Your task to perform on an android device: refresh tabs in the chrome app Image 0: 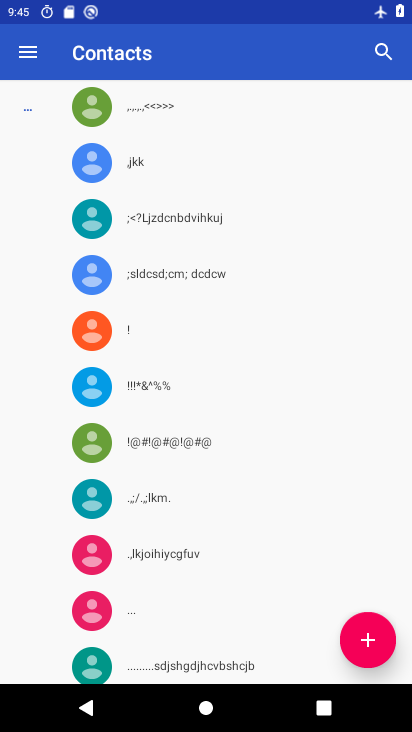
Step 0: press home button
Your task to perform on an android device: refresh tabs in the chrome app Image 1: 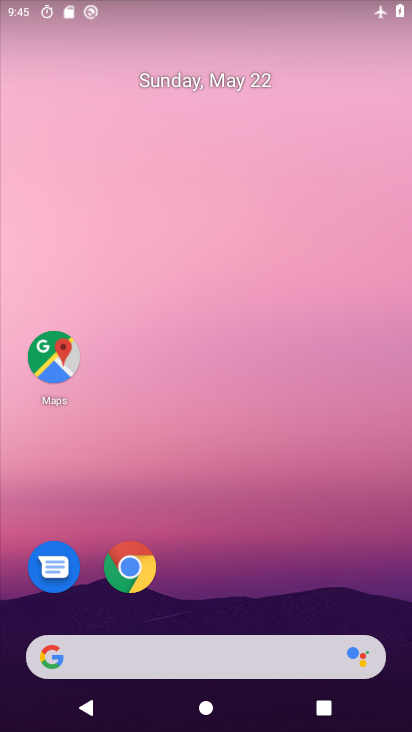
Step 1: click (127, 562)
Your task to perform on an android device: refresh tabs in the chrome app Image 2: 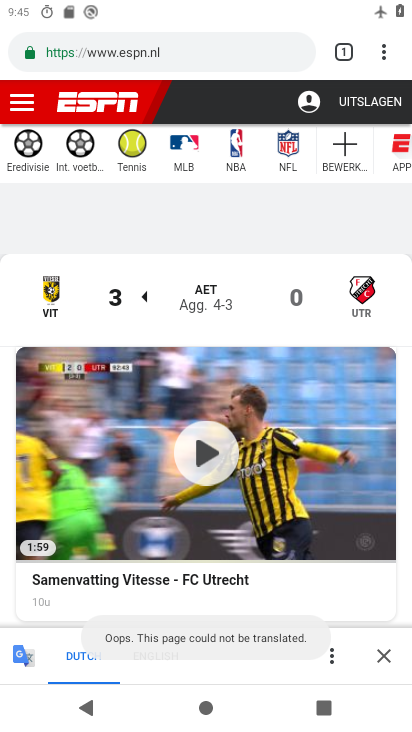
Step 2: click (387, 58)
Your task to perform on an android device: refresh tabs in the chrome app Image 3: 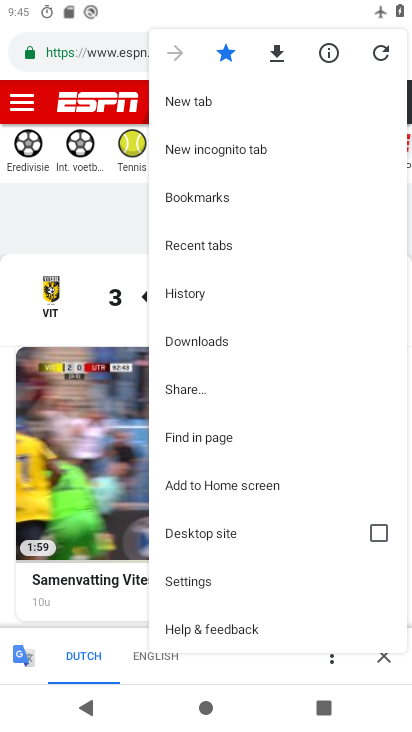
Step 3: click (384, 50)
Your task to perform on an android device: refresh tabs in the chrome app Image 4: 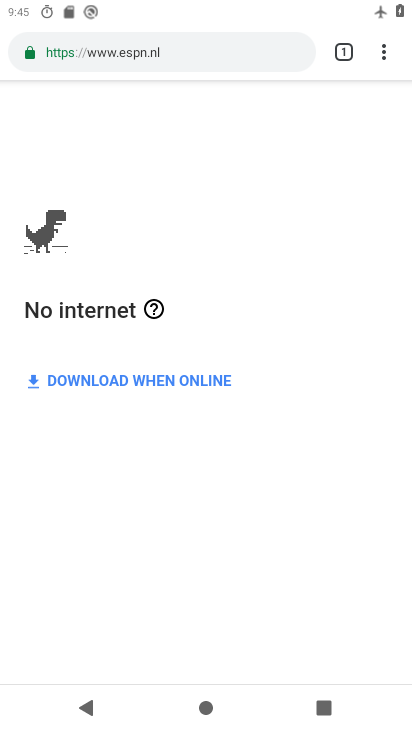
Step 4: task complete